Your task to perform on an android device: set the timer Image 0: 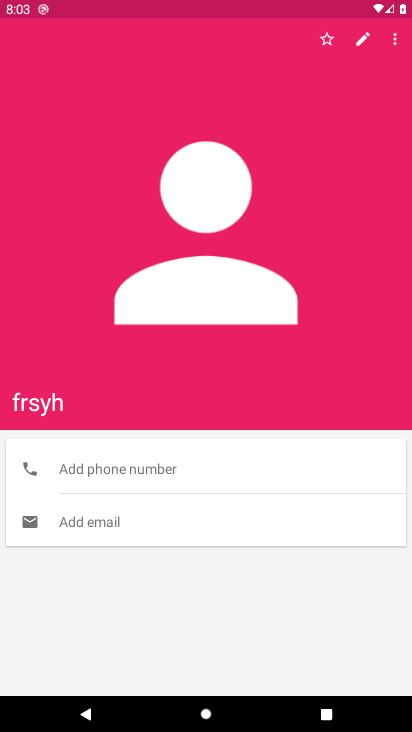
Step 0: press home button
Your task to perform on an android device: set the timer Image 1: 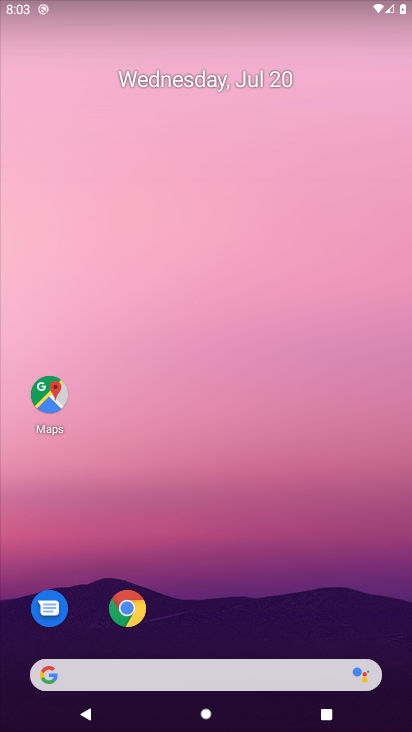
Step 1: click (292, 141)
Your task to perform on an android device: set the timer Image 2: 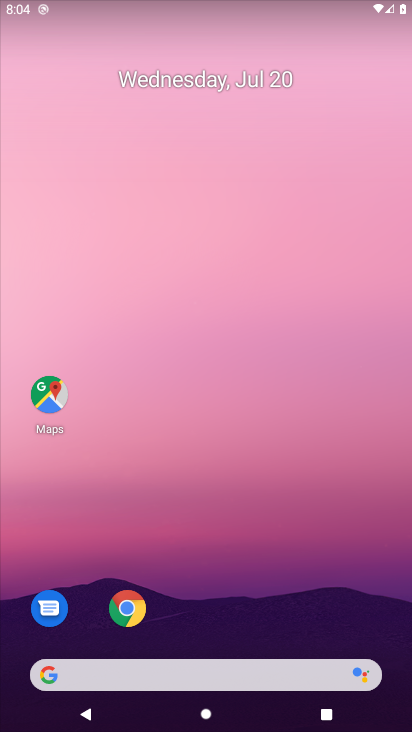
Step 2: drag from (212, 596) to (325, 0)
Your task to perform on an android device: set the timer Image 3: 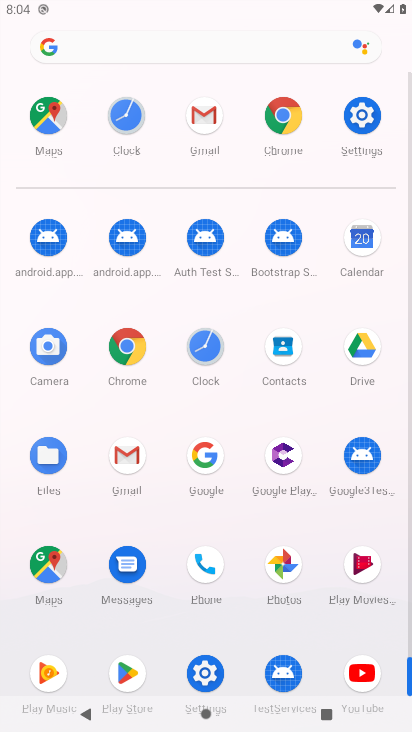
Step 3: click (213, 347)
Your task to perform on an android device: set the timer Image 4: 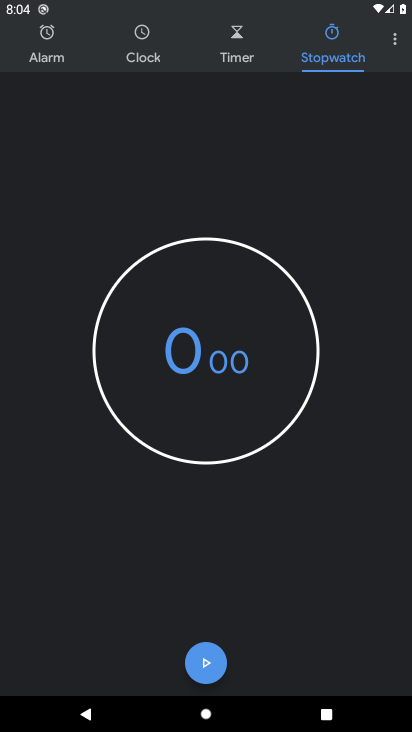
Step 4: click (247, 62)
Your task to perform on an android device: set the timer Image 5: 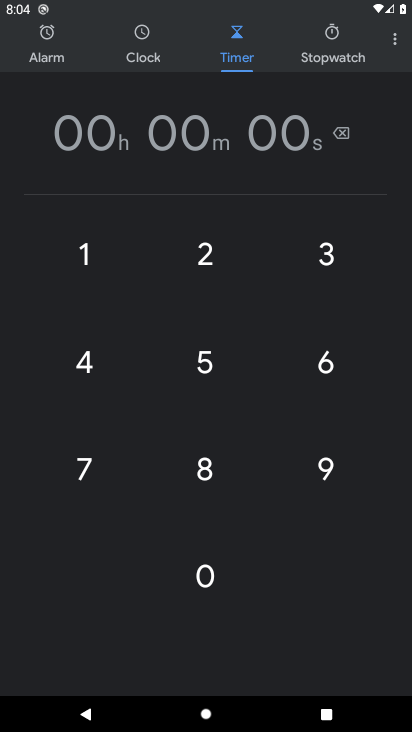
Step 5: click (202, 466)
Your task to perform on an android device: set the timer Image 6: 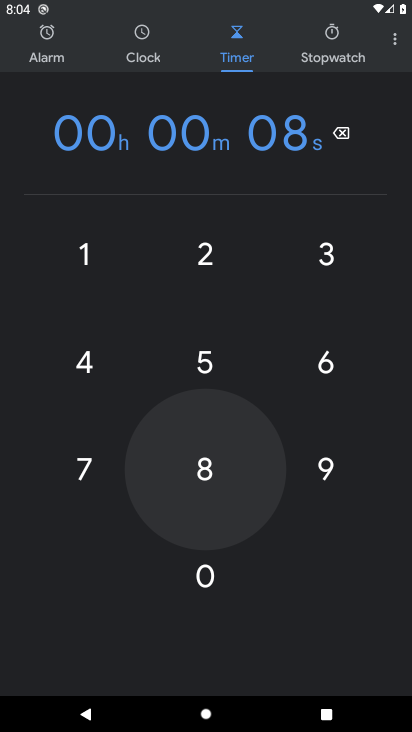
Step 6: click (217, 372)
Your task to perform on an android device: set the timer Image 7: 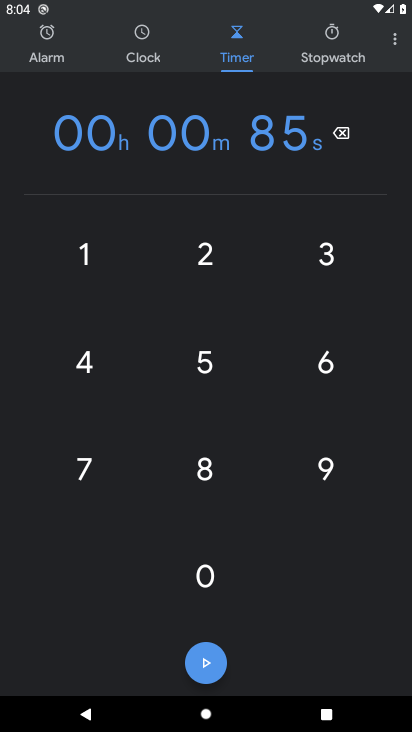
Step 7: click (110, 438)
Your task to perform on an android device: set the timer Image 8: 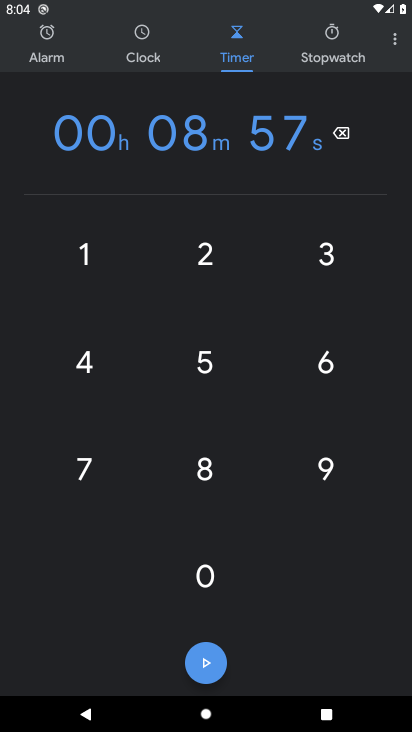
Step 8: click (218, 662)
Your task to perform on an android device: set the timer Image 9: 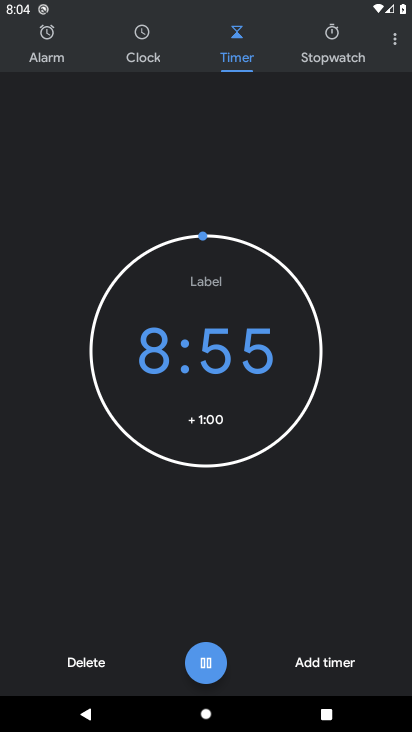
Step 9: task complete